Your task to perform on an android device: toggle notifications settings in the gmail app Image 0: 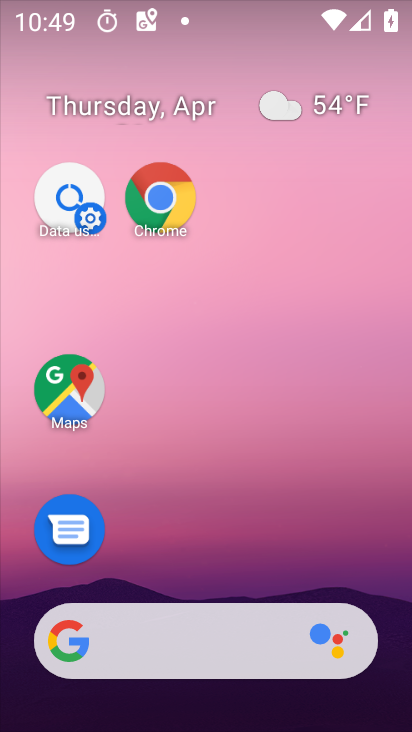
Step 0: drag from (182, 587) to (216, 102)
Your task to perform on an android device: toggle notifications settings in the gmail app Image 1: 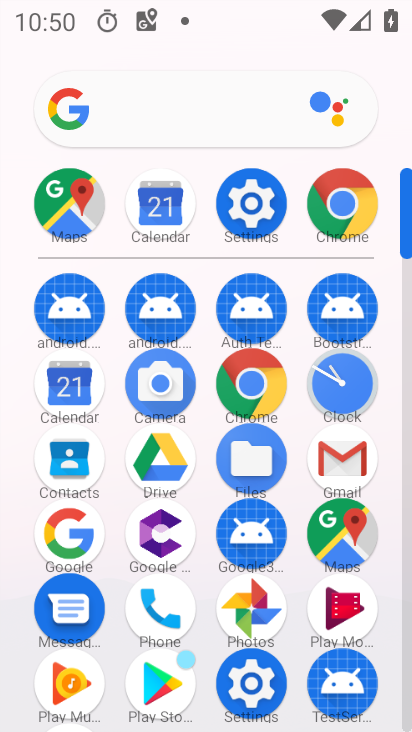
Step 1: click (337, 466)
Your task to perform on an android device: toggle notifications settings in the gmail app Image 2: 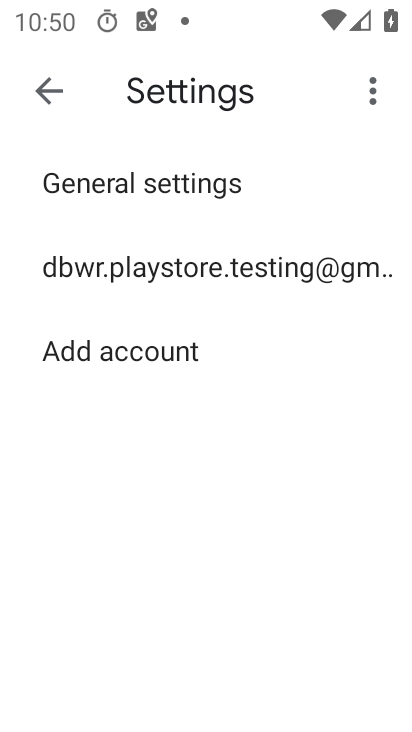
Step 2: click (142, 177)
Your task to perform on an android device: toggle notifications settings in the gmail app Image 3: 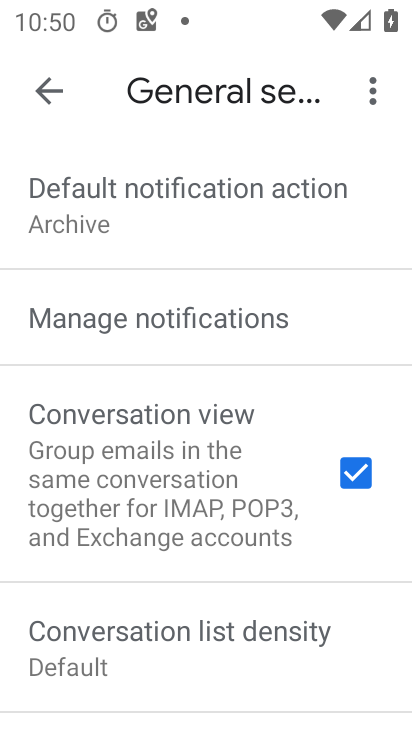
Step 3: click (165, 339)
Your task to perform on an android device: toggle notifications settings in the gmail app Image 4: 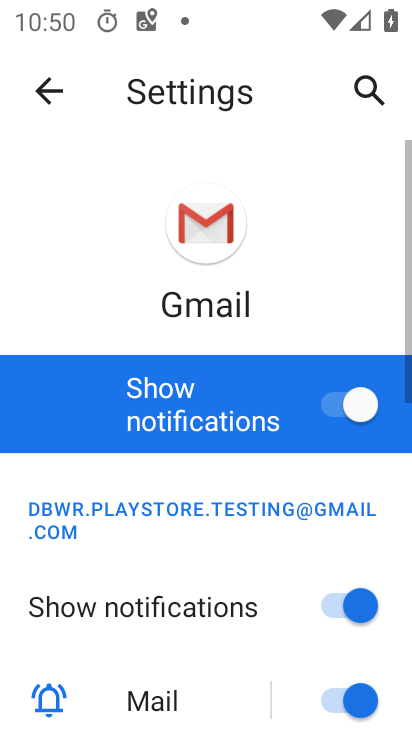
Step 4: click (336, 406)
Your task to perform on an android device: toggle notifications settings in the gmail app Image 5: 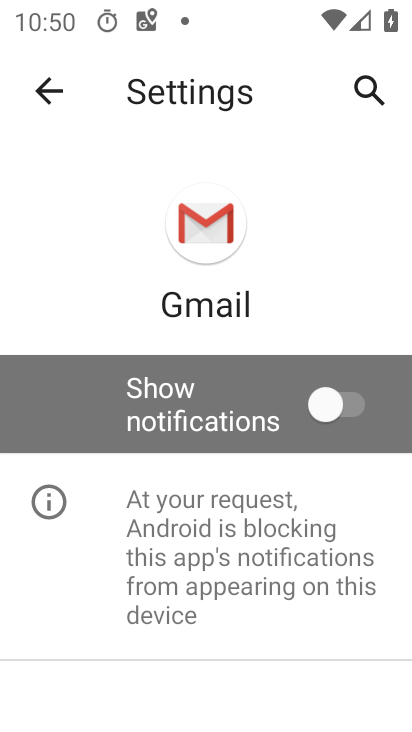
Step 5: task complete